Your task to perform on an android device: see tabs open on other devices in the chrome app Image 0: 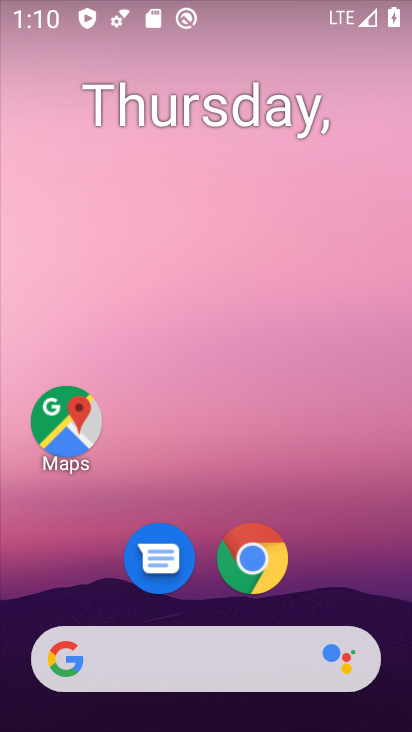
Step 0: click (231, 565)
Your task to perform on an android device: see tabs open on other devices in the chrome app Image 1: 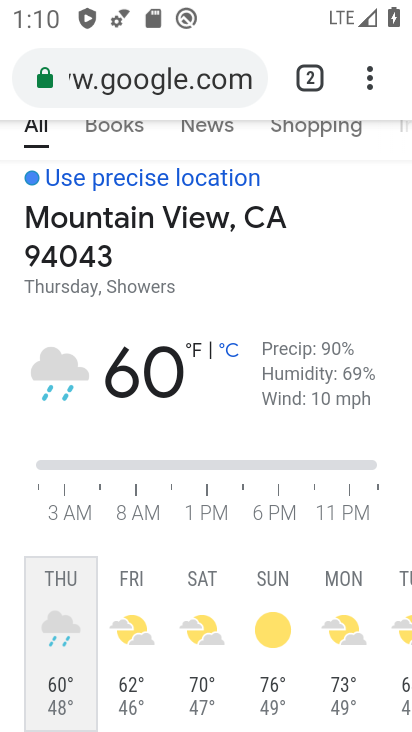
Step 1: click (373, 83)
Your task to perform on an android device: see tabs open on other devices in the chrome app Image 2: 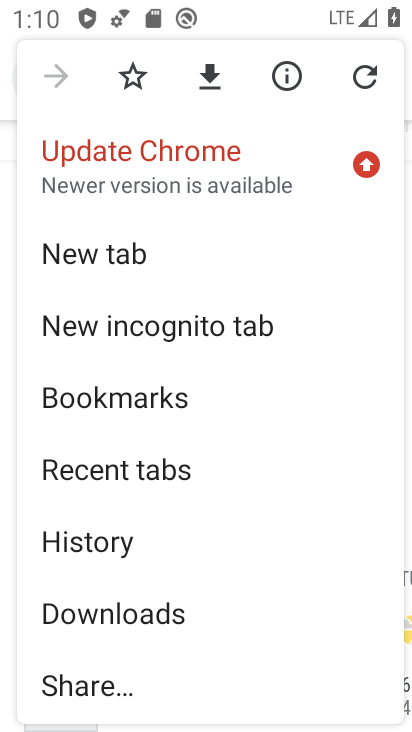
Step 2: click (147, 481)
Your task to perform on an android device: see tabs open on other devices in the chrome app Image 3: 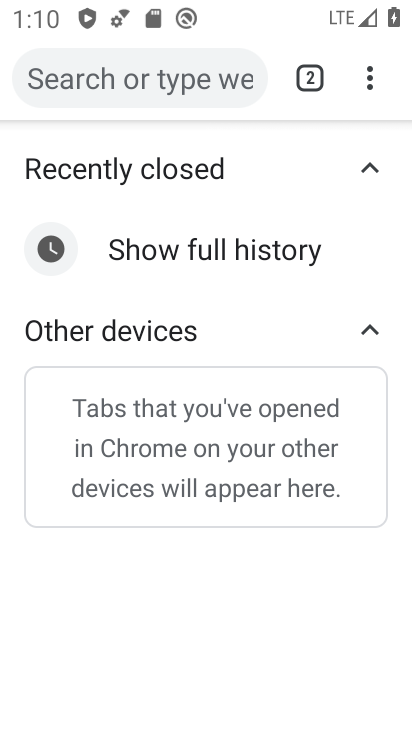
Step 3: task complete